Your task to perform on an android device: toggle javascript in the chrome app Image 0: 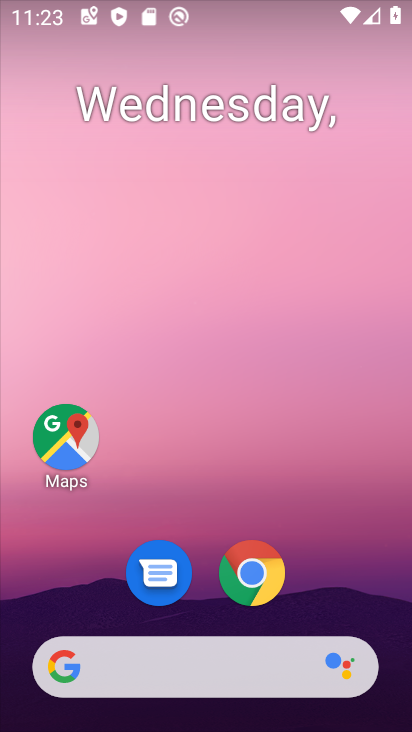
Step 0: click (248, 578)
Your task to perform on an android device: toggle javascript in the chrome app Image 1: 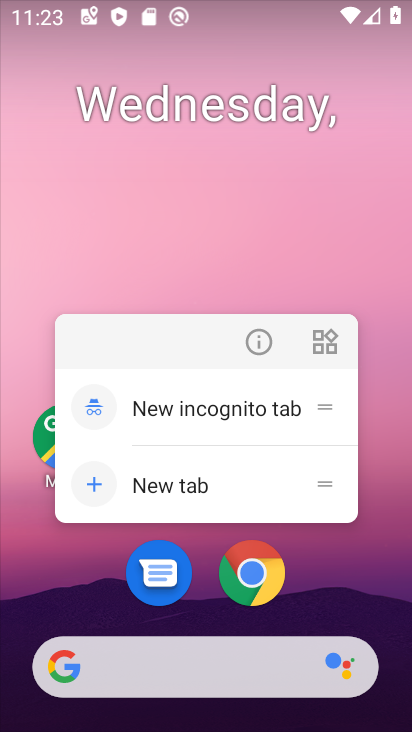
Step 1: click (248, 578)
Your task to perform on an android device: toggle javascript in the chrome app Image 2: 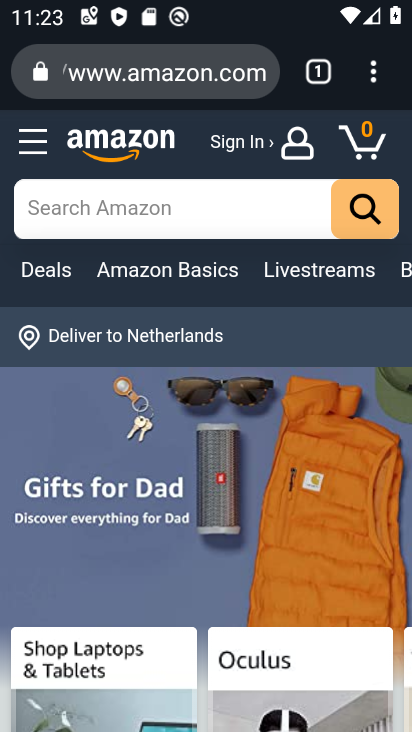
Step 2: click (369, 73)
Your task to perform on an android device: toggle javascript in the chrome app Image 3: 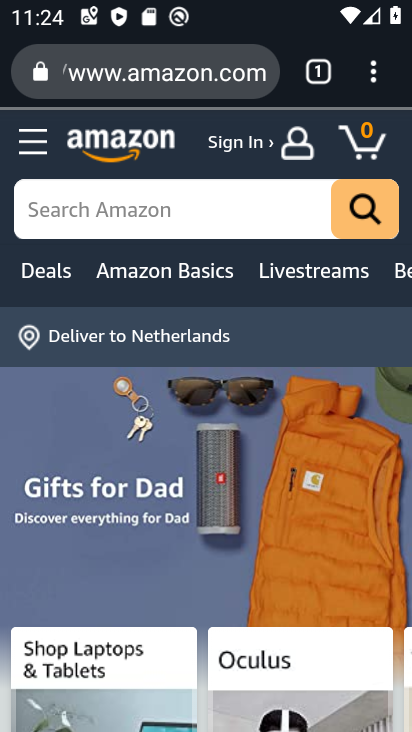
Step 3: click (378, 77)
Your task to perform on an android device: toggle javascript in the chrome app Image 4: 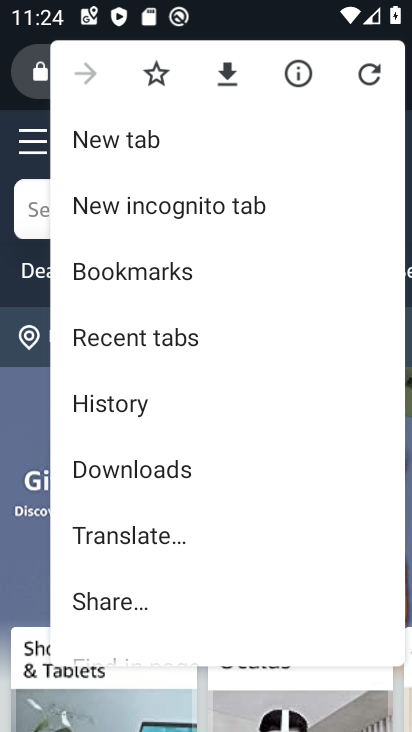
Step 4: drag from (193, 582) to (184, 167)
Your task to perform on an android device: toggle javascript in the chrome app Image 5: 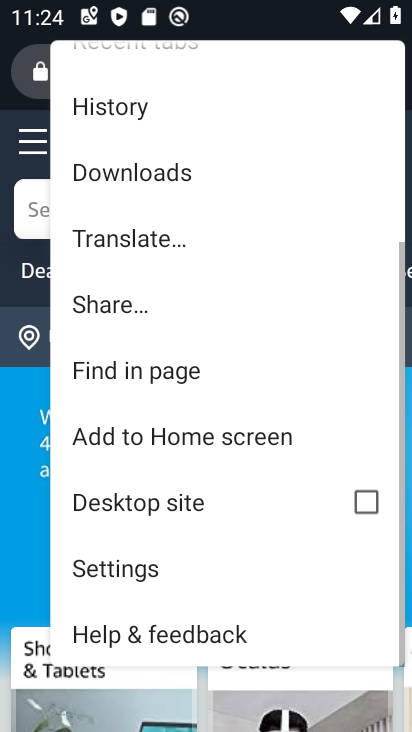
Step 5: click (162, 572)
Your task to perform on an android device: toggle javascript in the chrome app Image 6: 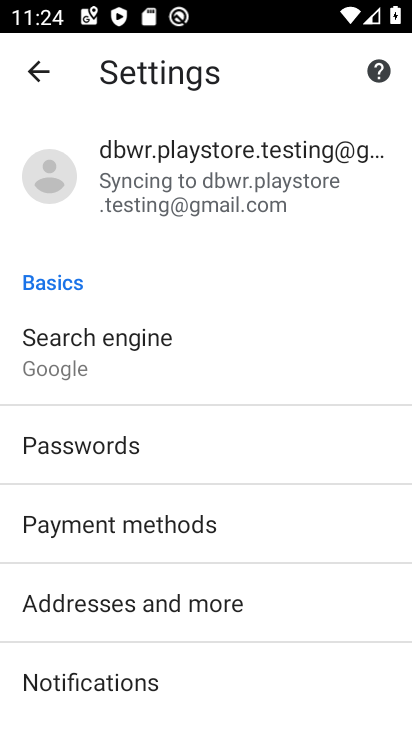
Step 6: drag from (152, 661) to (145, 378)
Your task to perform on an android device: toggle javascript in the chrome app Image 7: 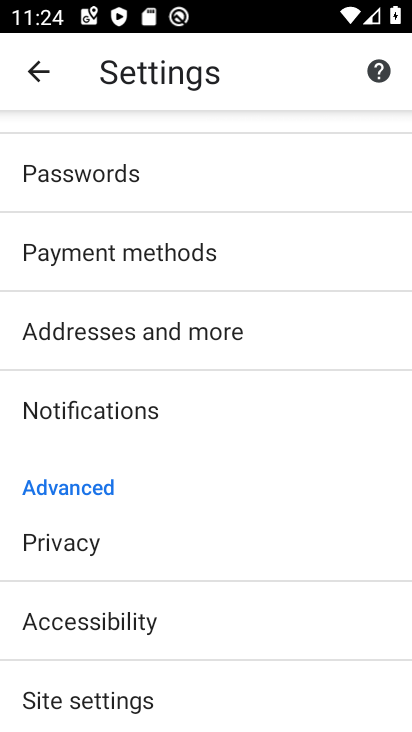
Step 7: drag from (126, 685) to (124, 403)
Your task to perform on an android device: toggle javascript in the chrome app Image 8: 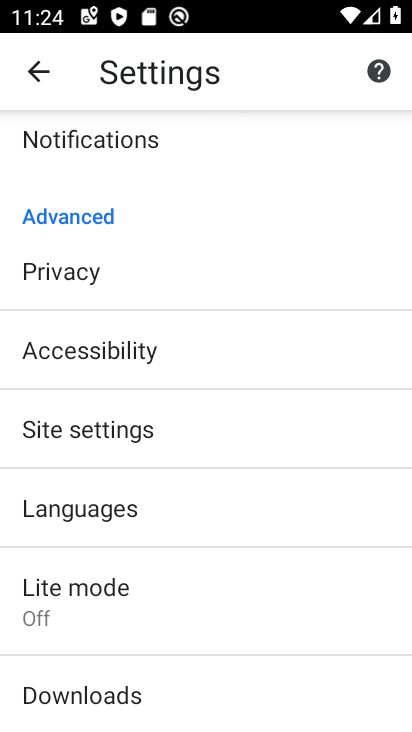
Step 8: click (114, 502)
Your task to perform on an android device: toggle javascript in the chrome app Image 9: 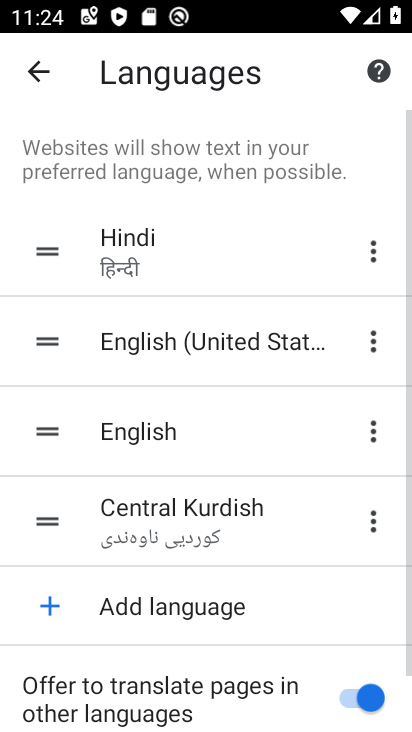
Step 9: click (39, 73)
Your task to perform on an android device: toggle javascript in the chrome app Image 10: 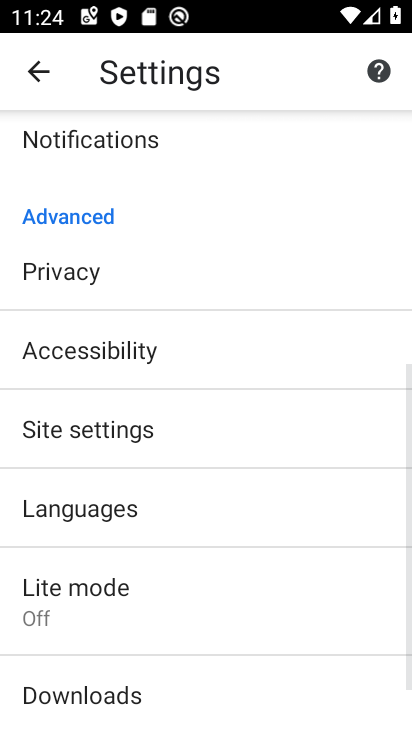
Step 10: click (106, 425)
Your task to perform on an android device: toggle javascript in the chrome app Image 11: 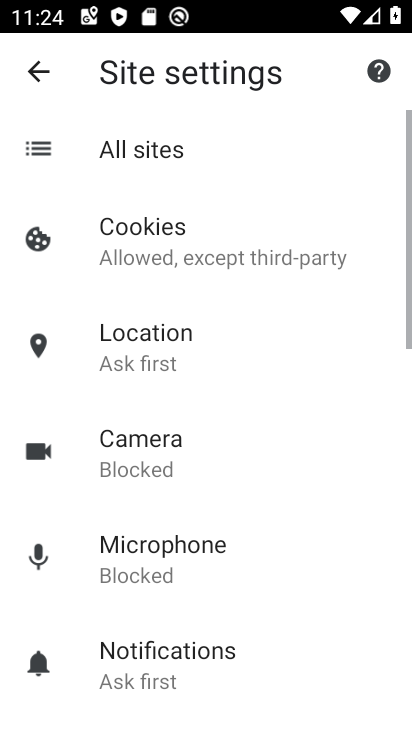
Step 11: drag from (115, 612) to (71, 329)
Your task to perform on an android device: toggle javascript in the chrome app Image 12: 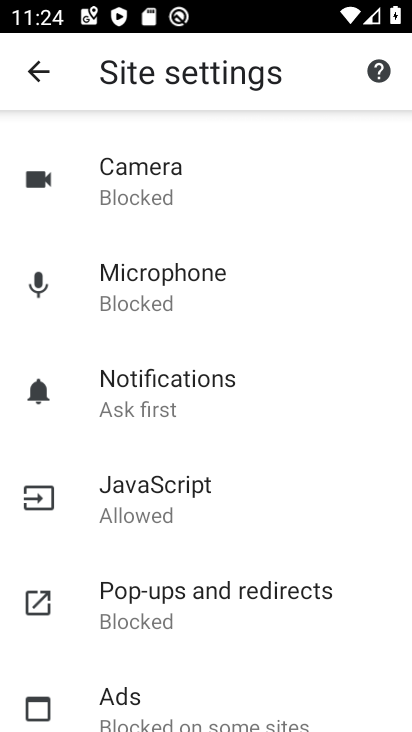
Step 12: click (143, 508)
Your task to perform on an android device: toggle javascript in the chrome app Image 13: 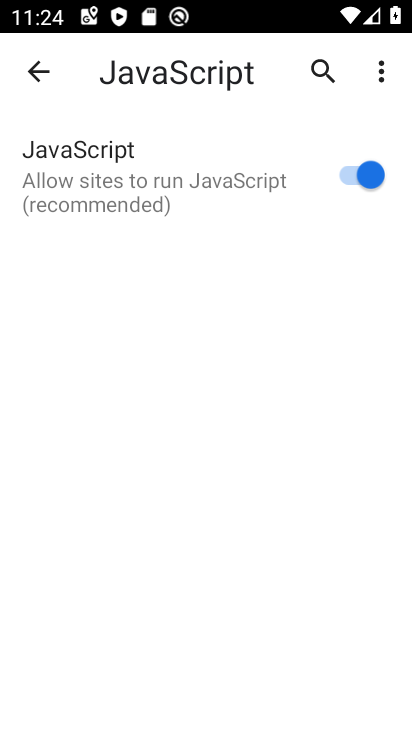
Step 13: click (359, 176)
Your task to perform on an android device: toggle javascript in the chrome app Image 14: 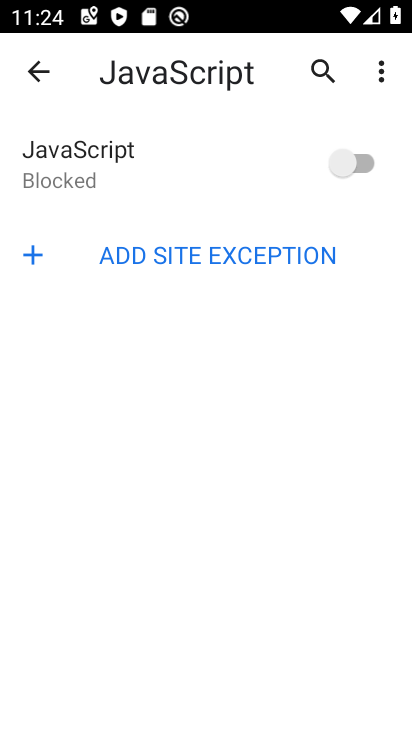
Step 14: task complete